Your task to perform on an android device: set the stopwatch Image 0: 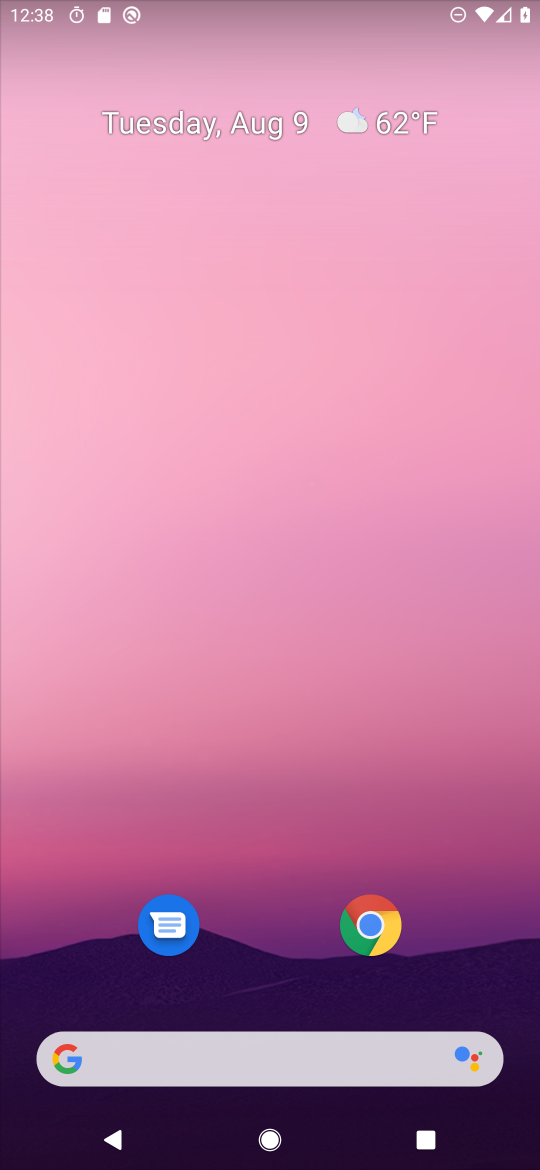
Step 0: drag from (232, 900) to (297, 221)
Your task to perform on an android device: set the stopwatch Image 1: 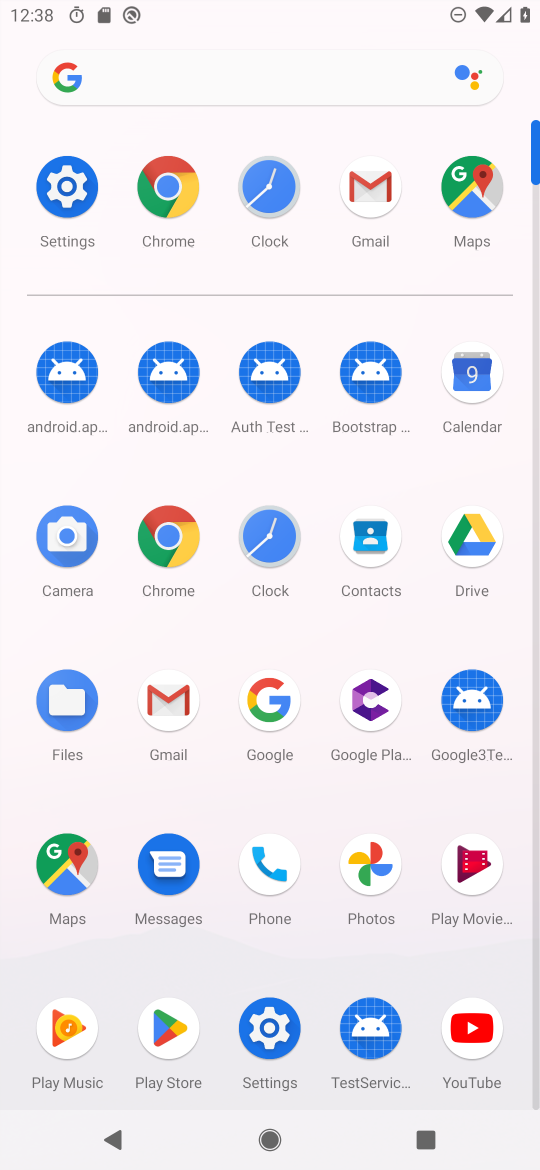
Step 1: click (276, 531)
Your task to perform on an android device: set the stopwatch Image 2: 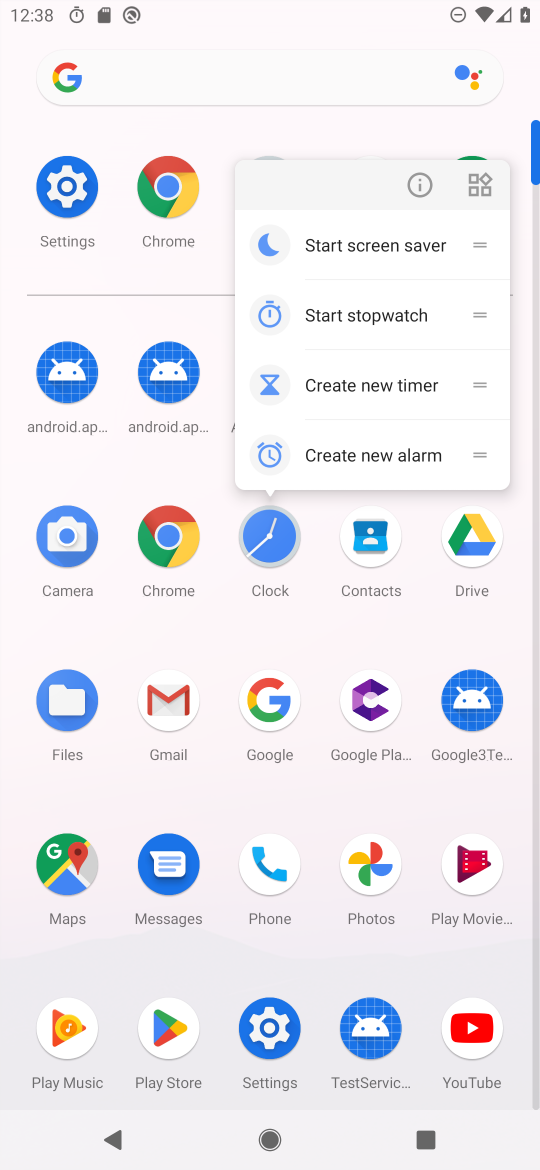
Step 2: click (265, 540)
Your task to perform on an android device: set the stopwatch Image 3: 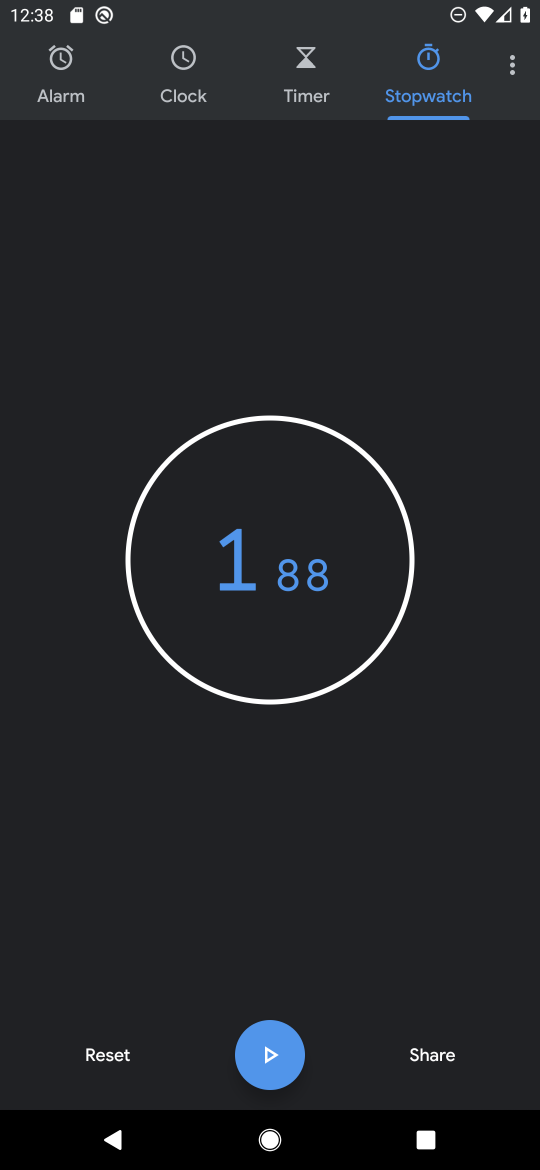
Step 3: task complete